Your task to perform on an android device: change the clock display to show seconds Image 0: 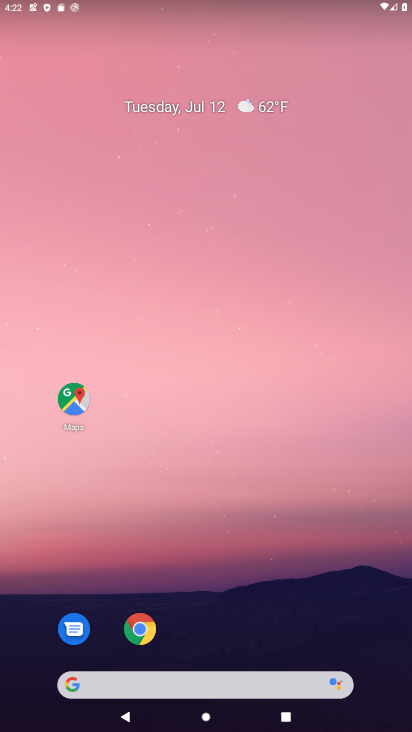
Step 0: drag from (212, 655) to (220, 151)
Your task to perform on an android device: change the clock display to show seconds Image 1: 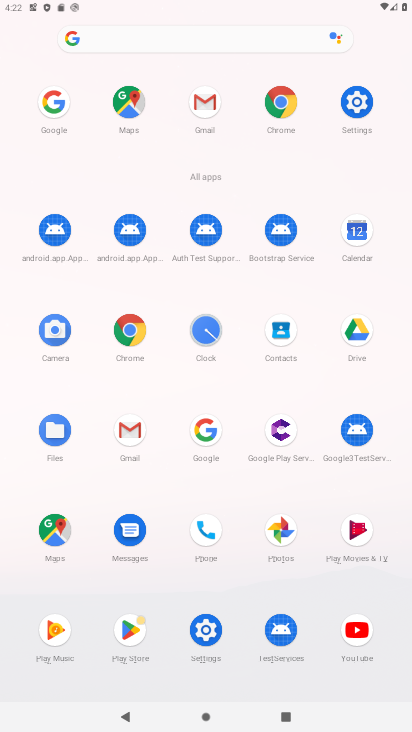
Step 1: click (206, 334)
Your task to perform on an android device: change the clock display to show seconds Image 2: 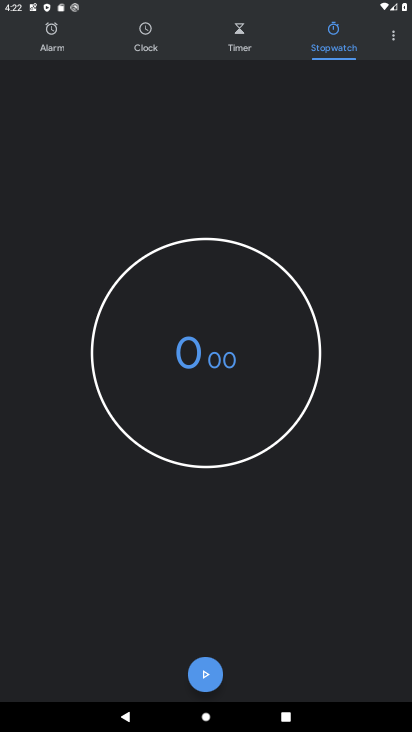
Step 2: drag from (385, 35) to (348, 71)
Your task to perform on an android device: change the clock display to show seconds Image 3: 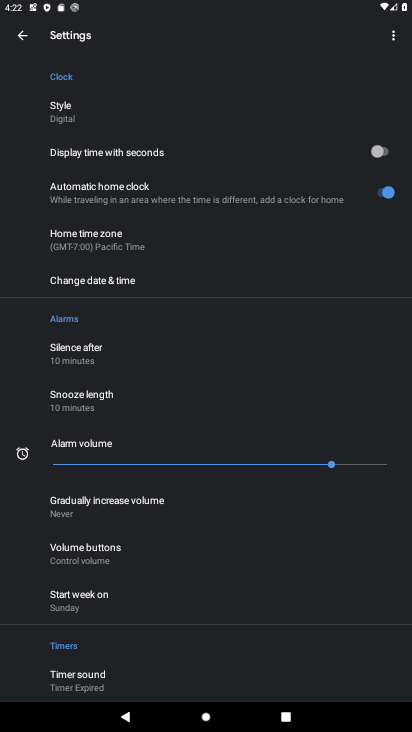
Step 3: click (375, 155)
Your task to perform on an android device: change the clock display to show seconds Image 4: 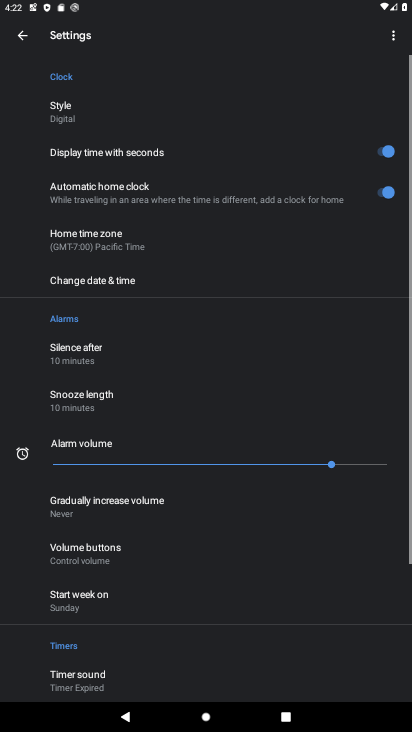
Step 4: task complete